Your task to perform on an android device: turn off javascript in the chrome app Image 0: 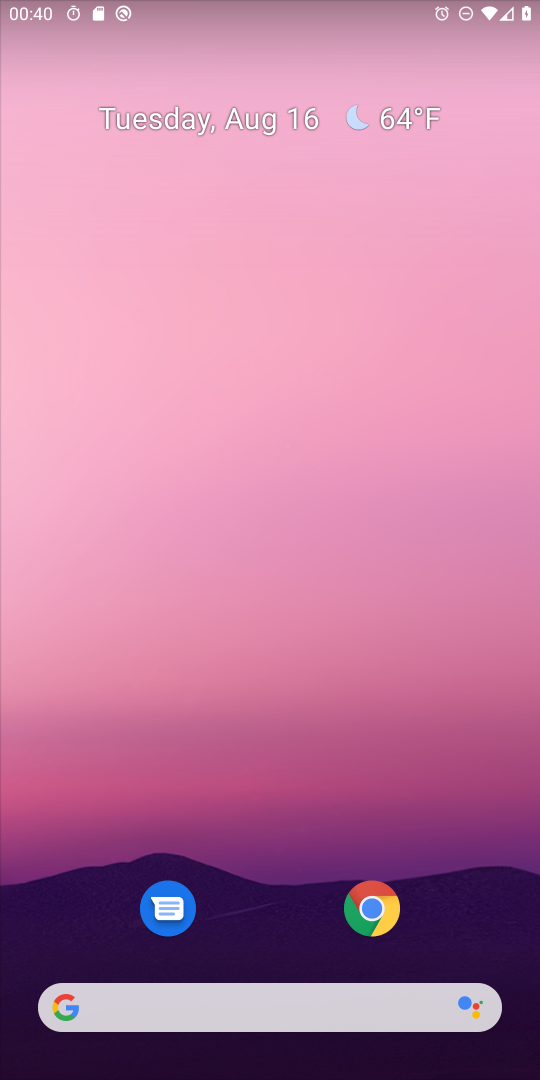
Step 0: click (377, 920)
Your task to perform on an android device: turn off javascript in the chrome app Image 1: 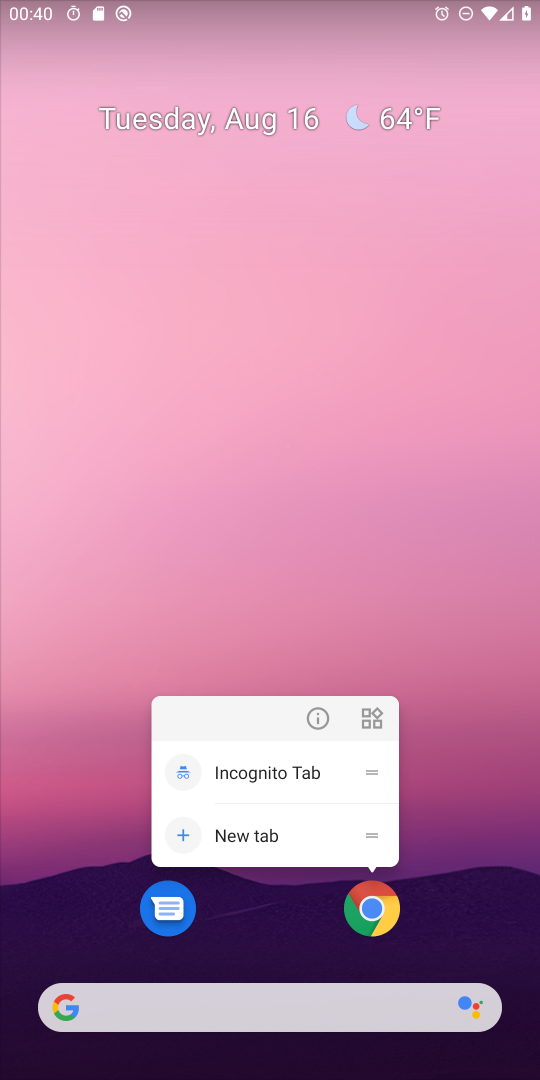
Step 1: click (372, 906)
Your task to perform on an android device: turn off javascript in the chrome app Image 2: 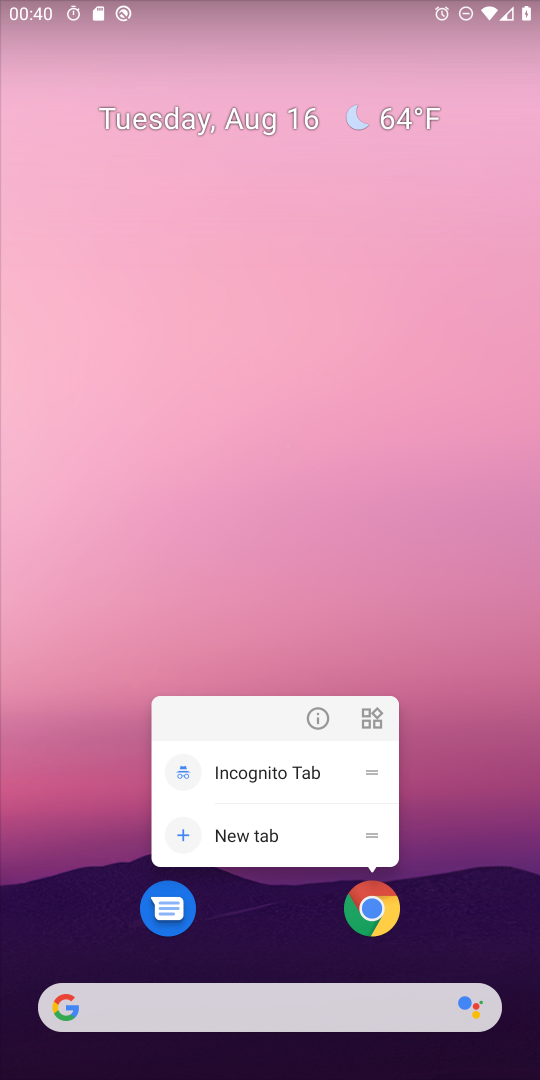
Step 2: click (372, 906)
Your task to perform on an android device: turn off javascript in the chrome app Image 3: 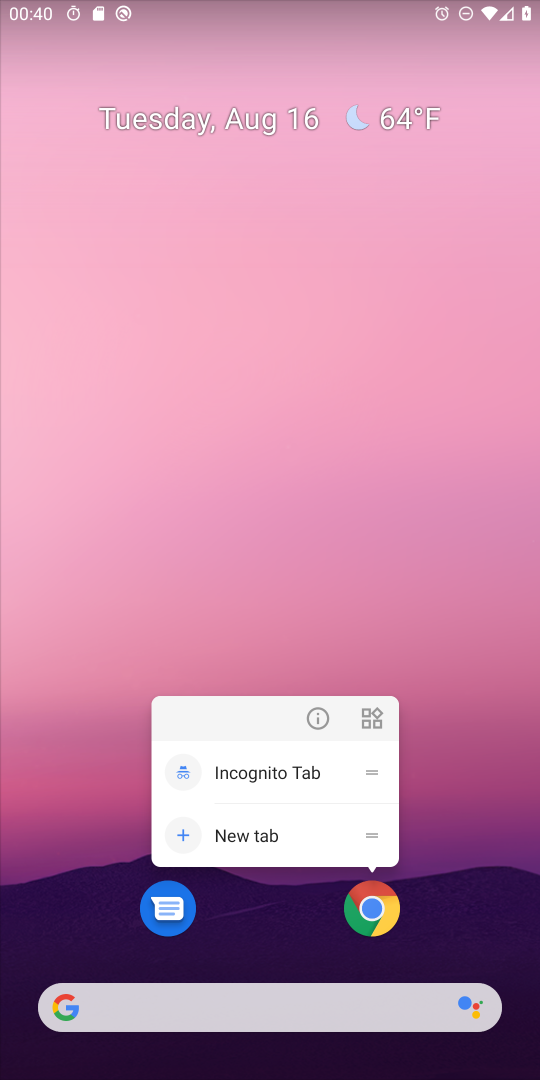
Step 3: click (372, 906)
Your task to perform on an android device: turn off javascript in the chrome app Image 4: 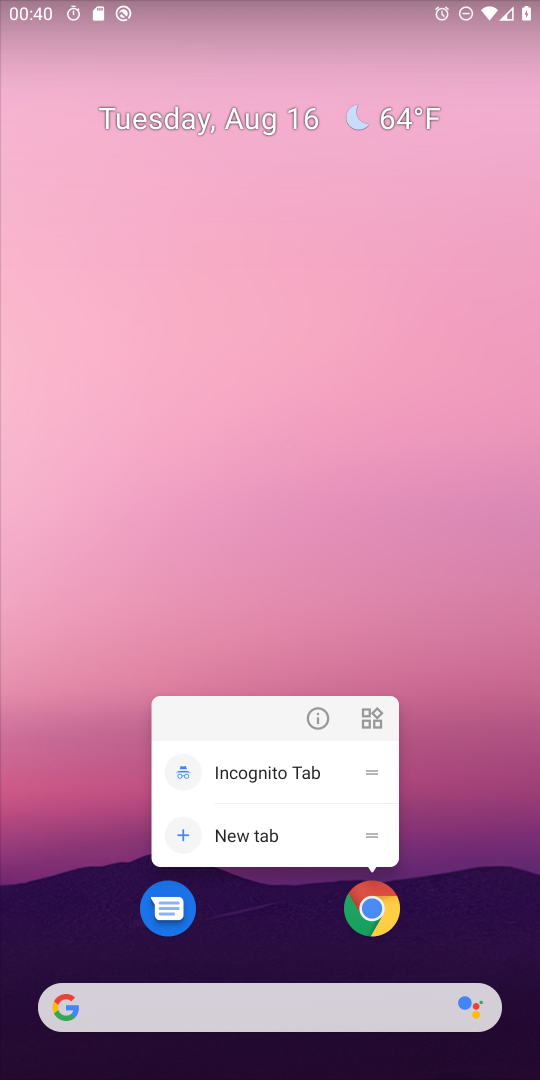
Step 4: click (378, 928)
Your task to perform on an android device: turn off javascript in the chrome app Image 5: 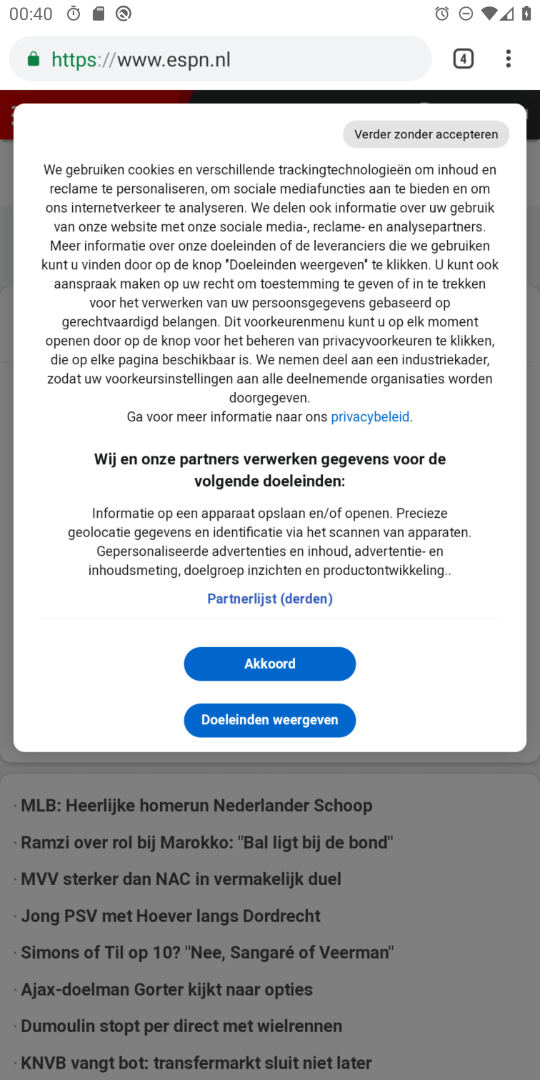
Step 5: click (387, 904)
Your task to perform on an android device: turn off javascript in the chrome app Image 6: 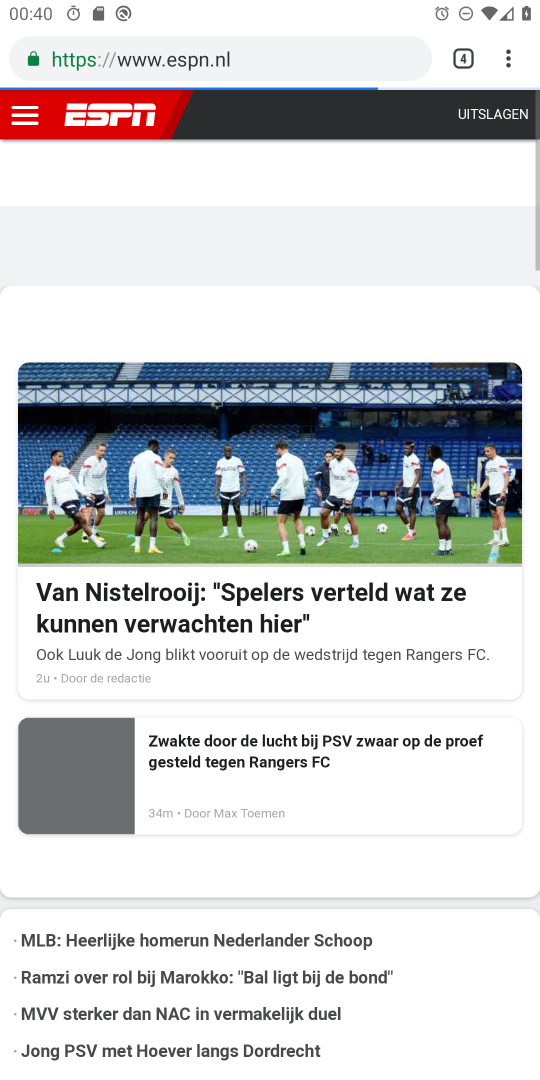
Step 6: click (516, 64)
Your task to perform on an android device: turn off javascript in the chrome app Image 7: 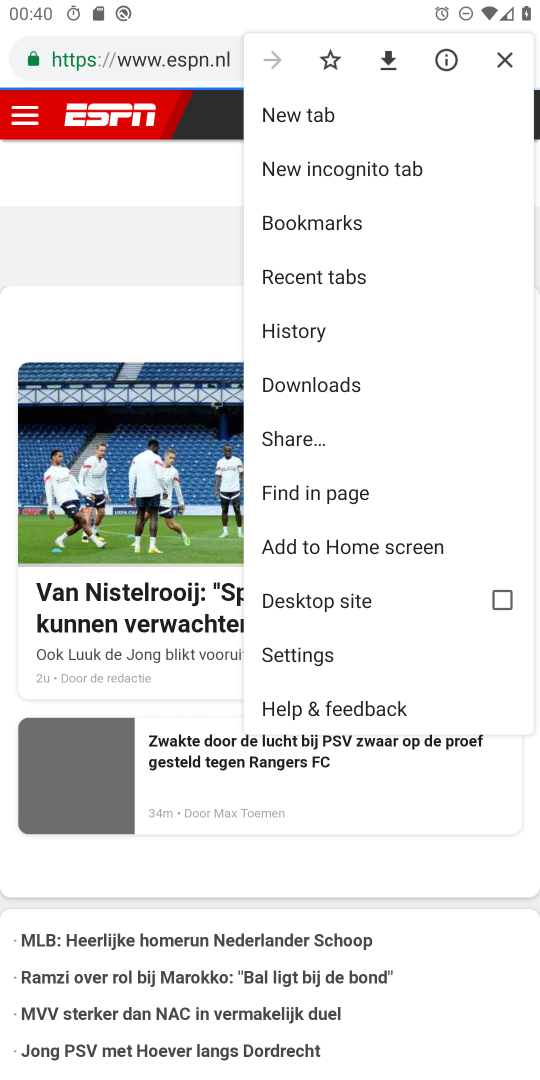
Step 7: click (516, 64)
Your task to perform on an android device: turn off javascript in the chrome app Image 8: 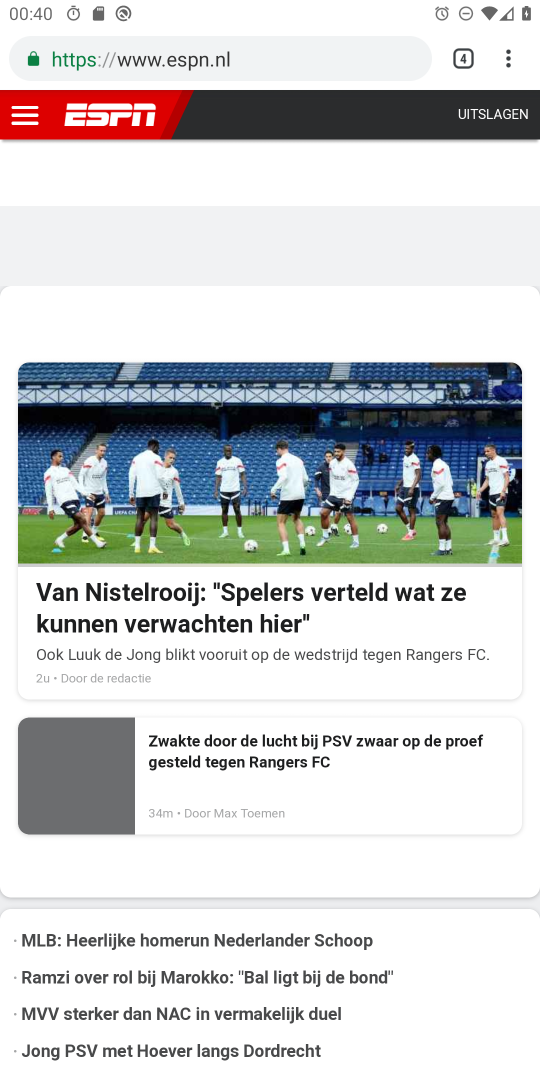
Step 8: click (520, 54)
Your task to perform on an android device: turn off javascript in the chrome app Image 9: 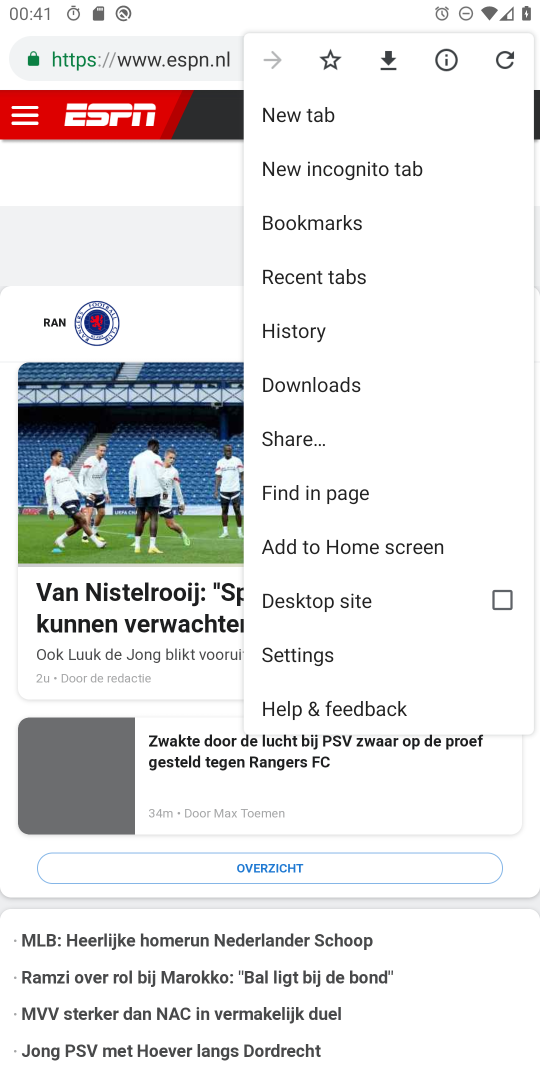
Step 9: click (319, 652)
Your task to perform on an android device: turn off javascript in the chrome app Image 10: 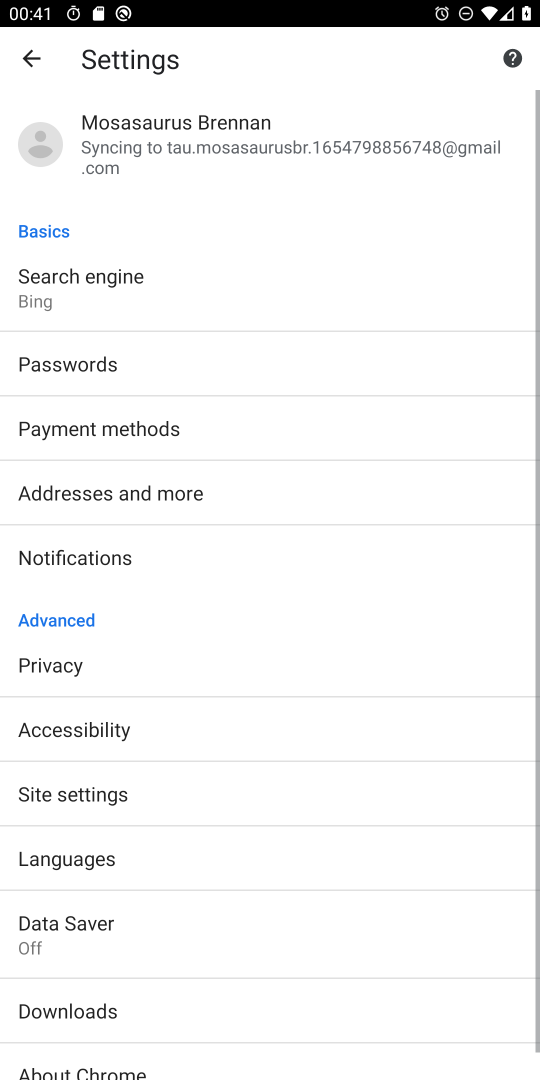
Step 10: click (319, 652)
Your task to perform on an android device: turn off javascript in the chrome app Image 11: 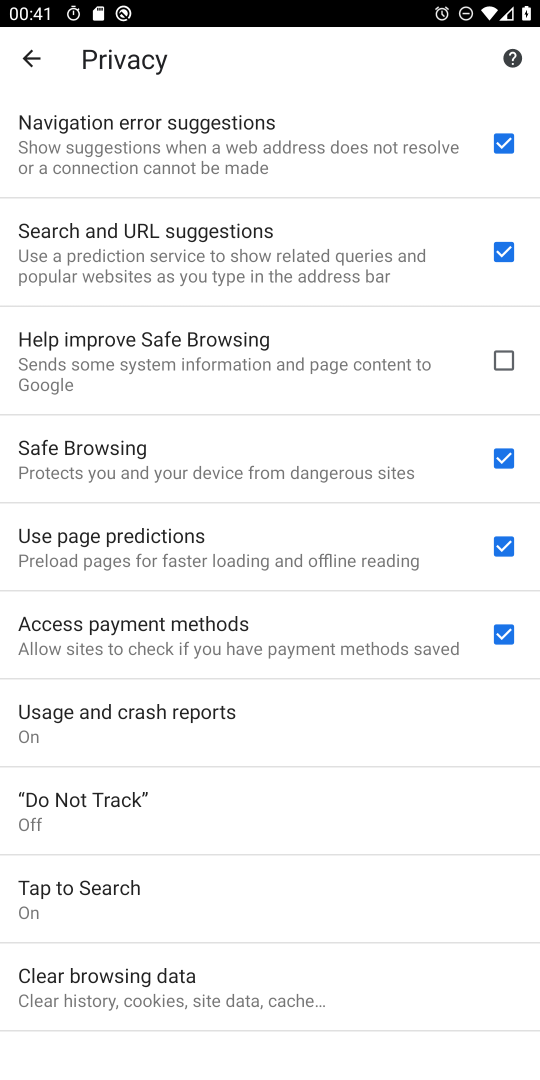
Step 11: click (45, 57)
Your task to perform on an android device: turn off javascript in the chrome app Image 12: 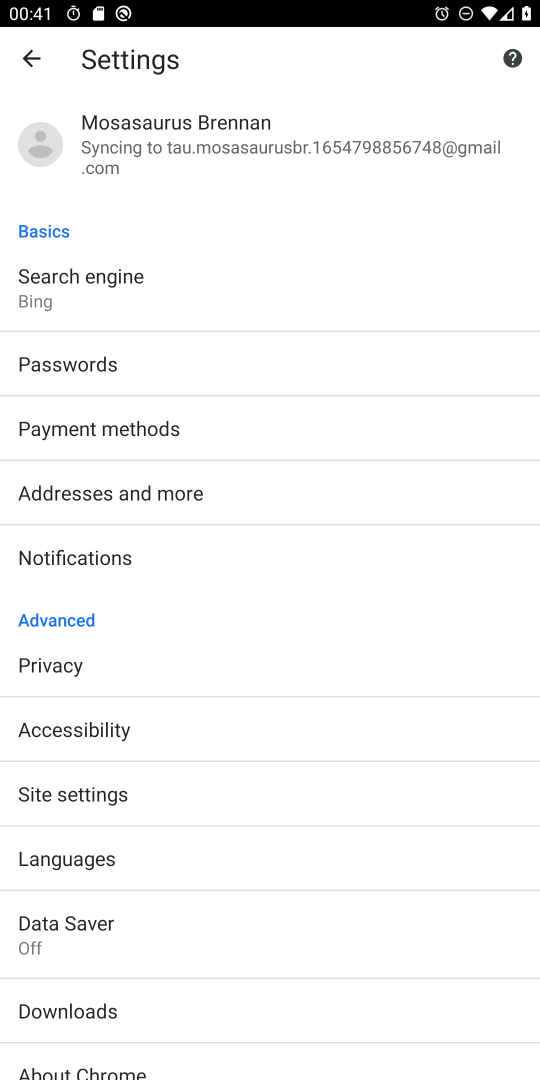
Step 12: click (215, 796)
Your task to perform on an android device: turn off javascript in the chrome app Image 13: 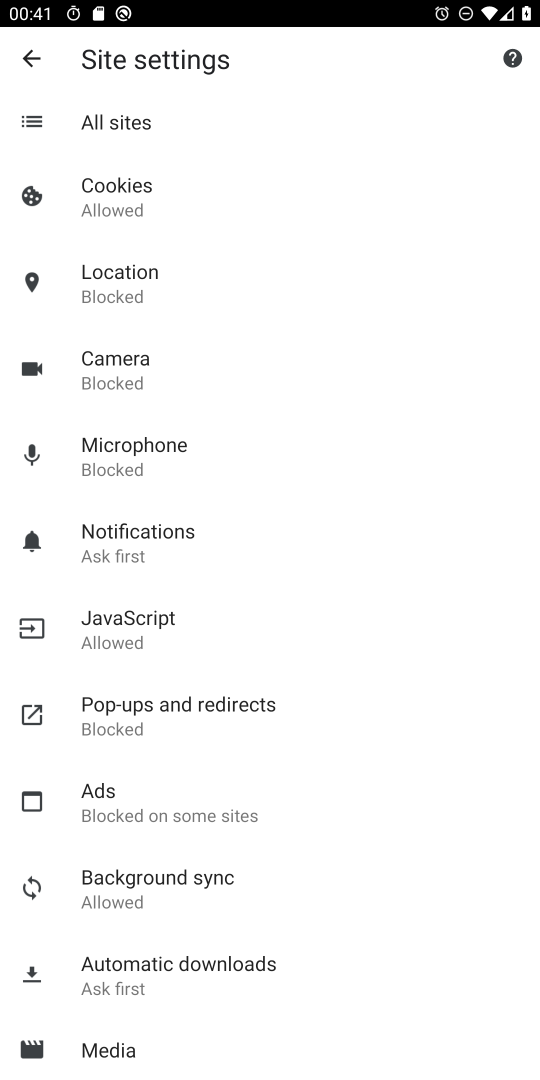
Step 13: click (163, 632)
Your task to perform on an android device: turn off javascript in the chrome app Image 14: 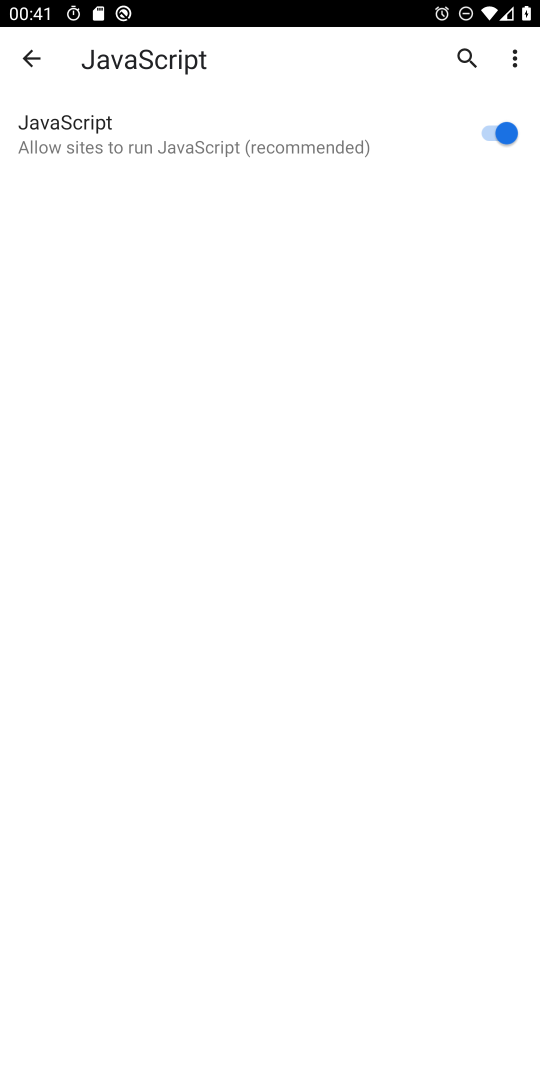
Step 14: click (495, 131)
Your task to perform on an android device: turn off javascript in the chrome app Image 15: 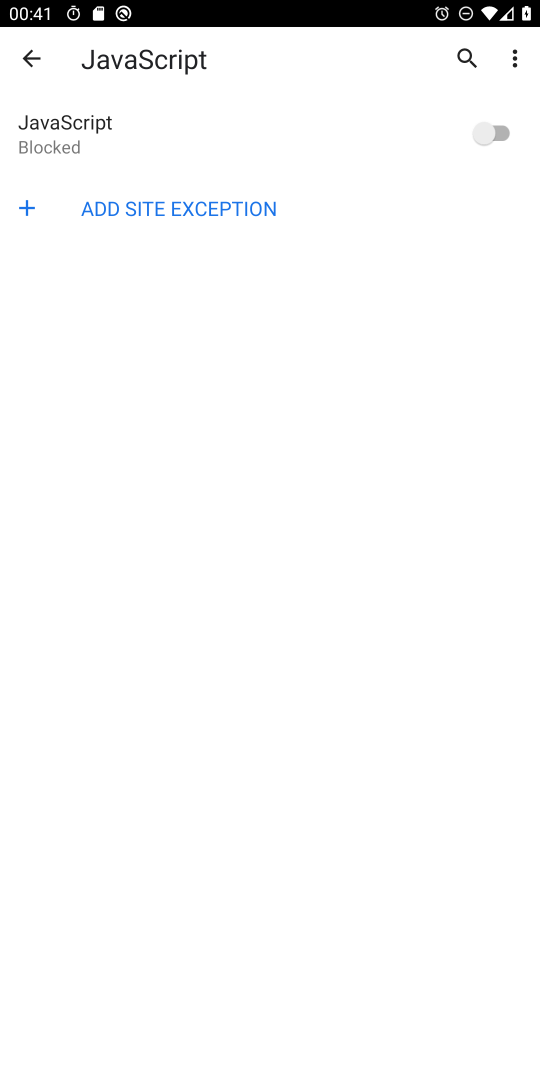
Step 15: task complete